Your task to perform on an android device: open the mobile data screen to see how much data has been used Image 0: 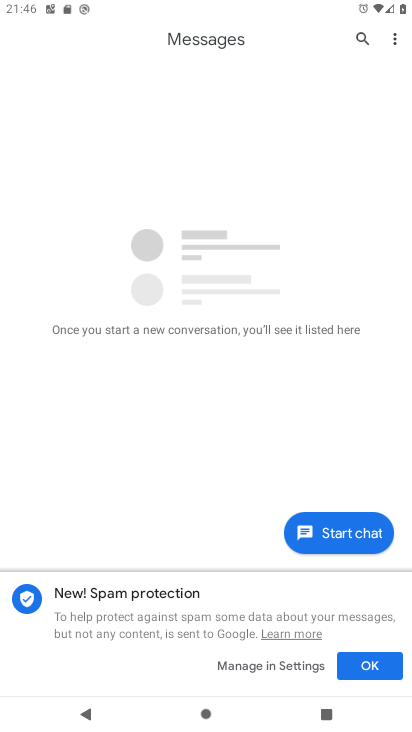
Step 0: press back button
Your task to perform on an android device: open the mobile data screen to see how much data has been used Image 1: 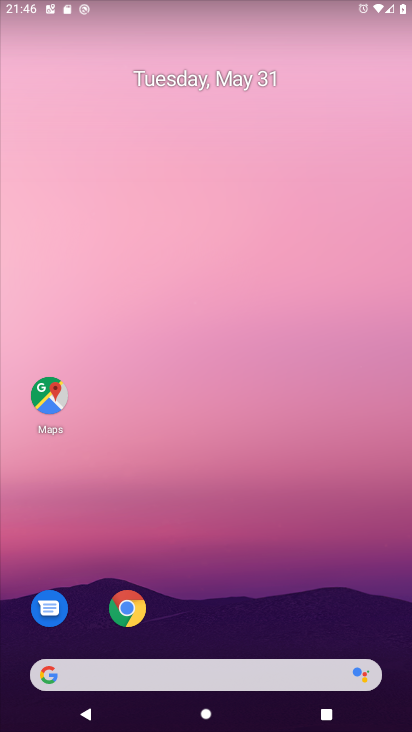
Step 1: drag from (268, 570) to (231, 109)
Your task to perform on an android device: open the mobile data screen to see how much data has been used Image 2: 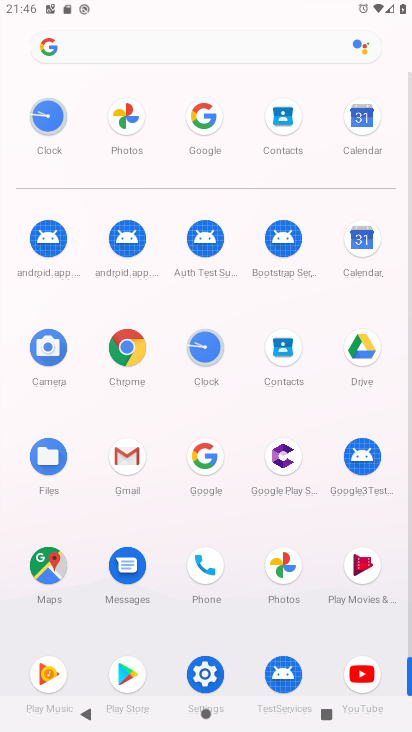
Step 2: drag from (239, 529) to (237, 350)
Your task to perform on an android device: open the mobile data screen to see how much data has been used Image 3: 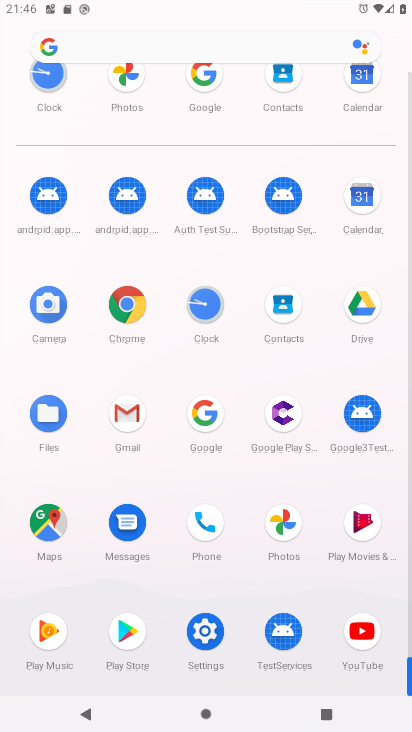
Step 3: click (205, 631)
Your task to perform on an android device: open the mobile data screen to see how much data has been used Image 4: 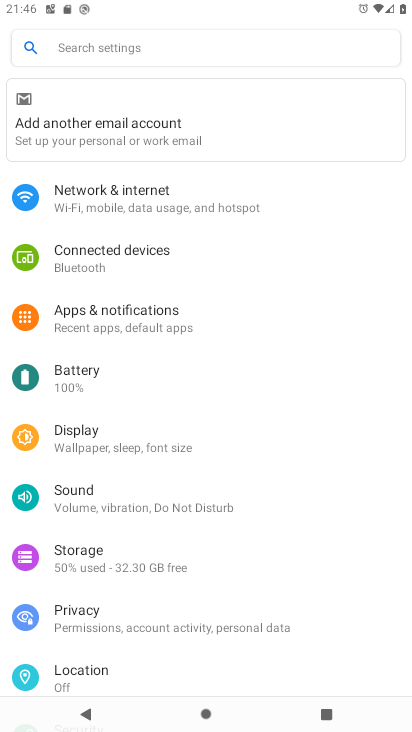
Step 4: click (145, 200)
Your task to perform on an android device: open the mobile data screen to see how much data has been used Image 5: 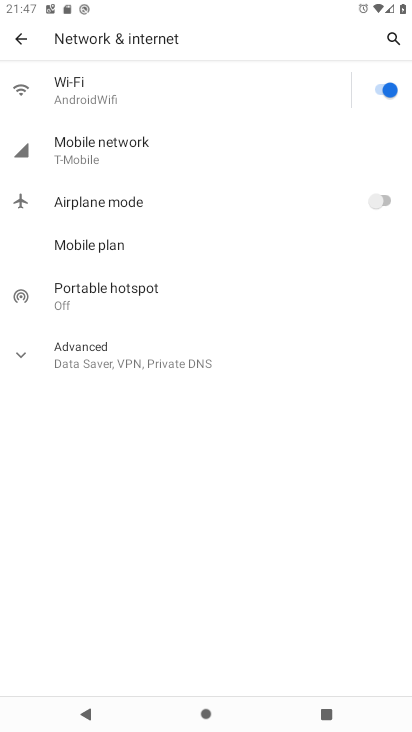
Step 5: click (103, 144)
Your task to perform on an android device: open the mobile data screen to see how much data has been used Image 6: 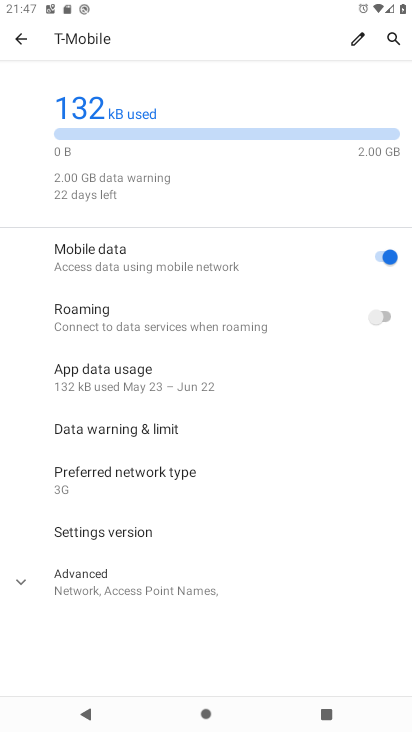
Step 6: task complete